Your task to perform on an android device: find snoozed emails in the gmail app Image 0: 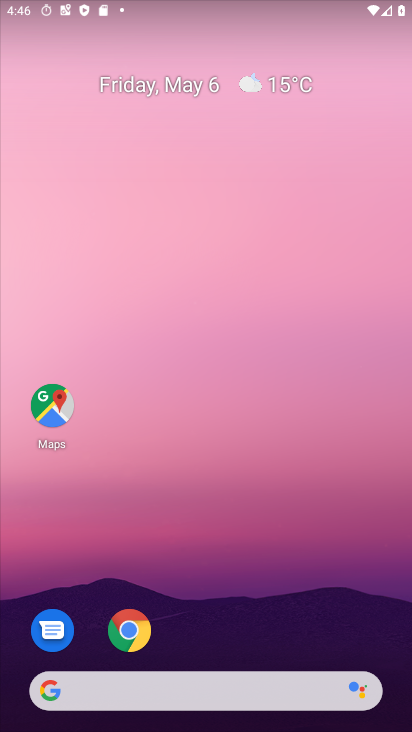
Step 0: drag from (210, 614) to (288, 67)
Your task to perform on an android device: find snoozed emails in the gmail app Image 1: 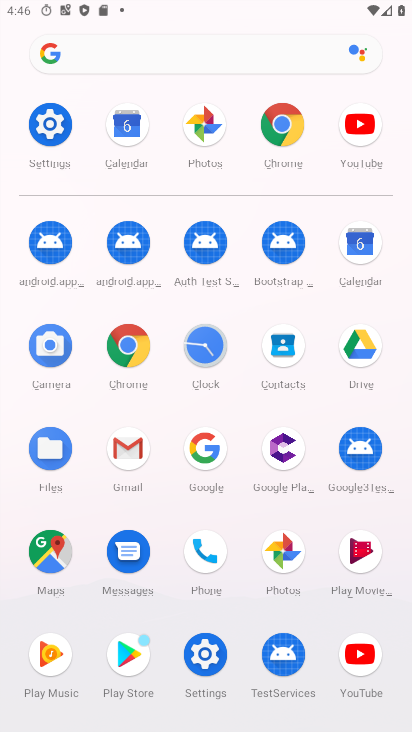
Step 1: click (138, 455)
Your task to perform on an android device: find snoozed emails in the gmail app Image 2: 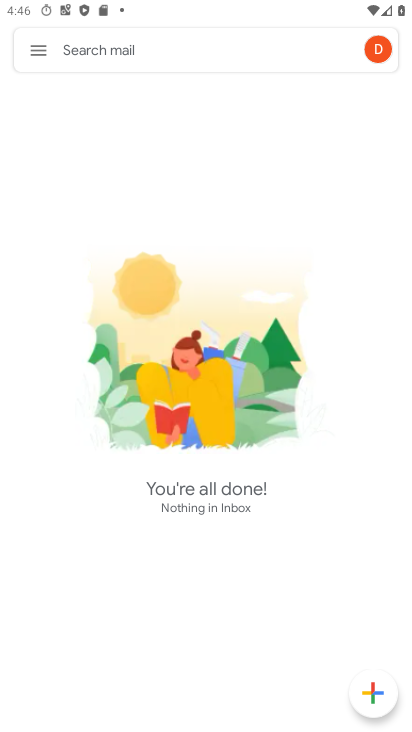
Step 2: click (37, 48)
Your task to perform on an android device: find snoozed emails in the gmail app Image 3: 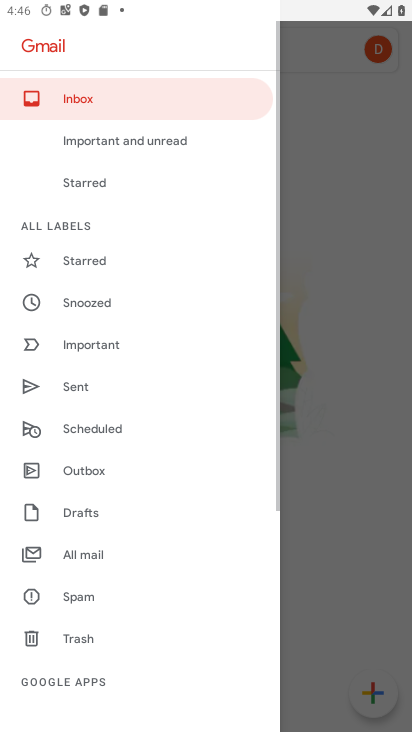
Step 3: click (108, 302)
Your task to perform on an android device: find snoozed emails in the gmail app Image 4: 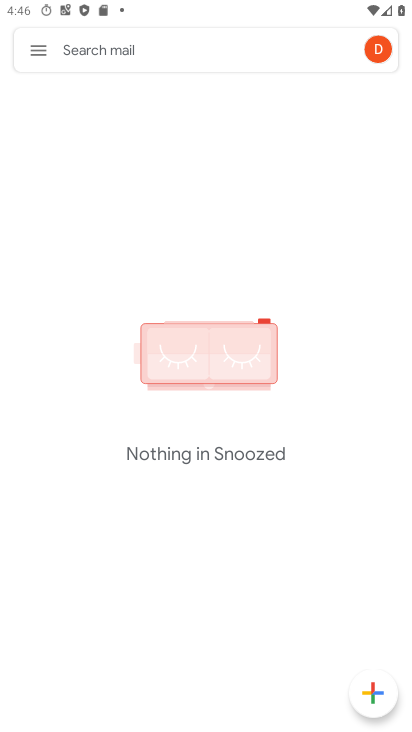
Step 4: task complete